Your task to perform on an android device: see tabs open on other devices in the chrome app Image 0: 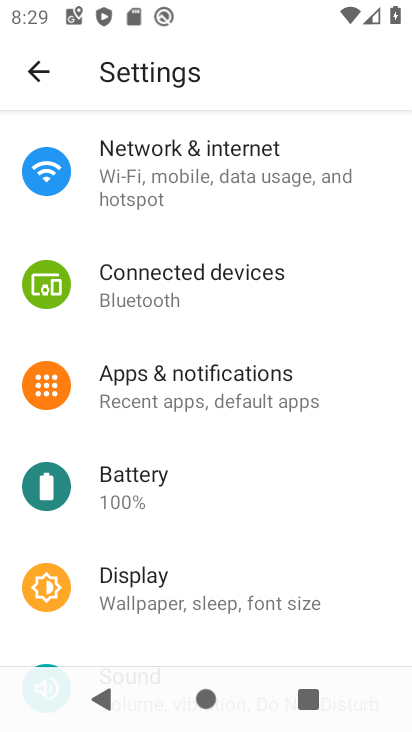
Step 0: press home button
Your task to perform on an android device: see tabs open on other devices in the chrome app Image 1: 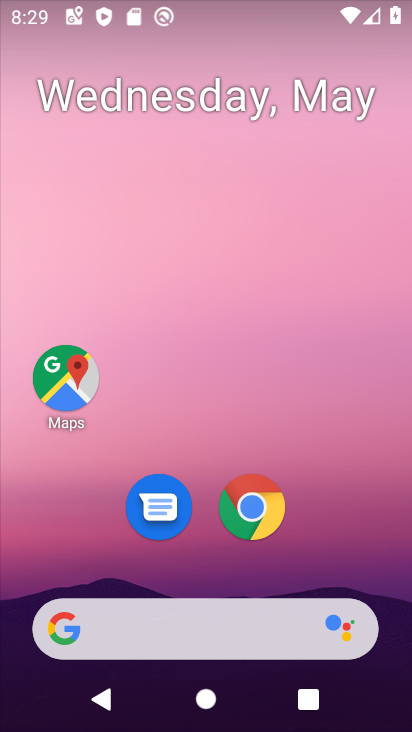
Step 1: click (270, 495)
Your task to perform on an android device: see tabs open on other devices in the chrome app Image 2: 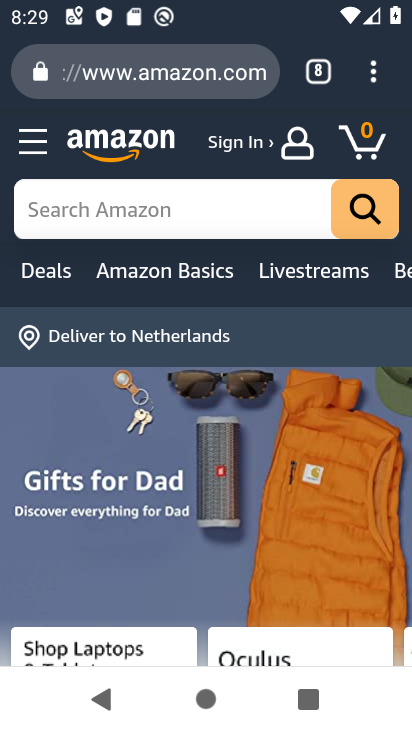
Step 2: click (356, 56)
Your task to perform on an android device: see tabs open on other devices in the chrome app Image 3: 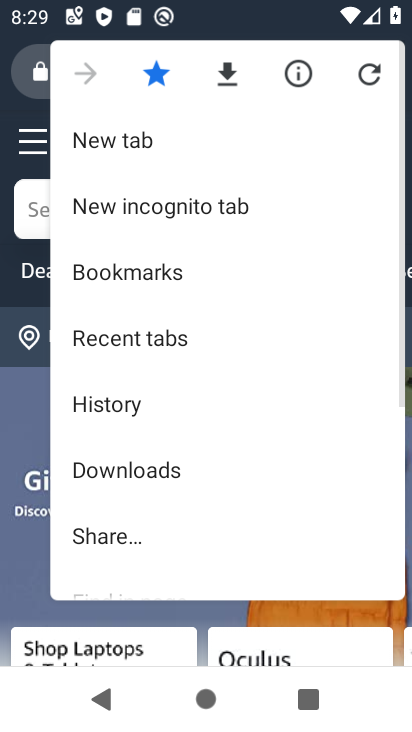
Step 3: click (142, 412)
Your task to perform on an android device: see tabs open on other devices in the chrome app Image 4: 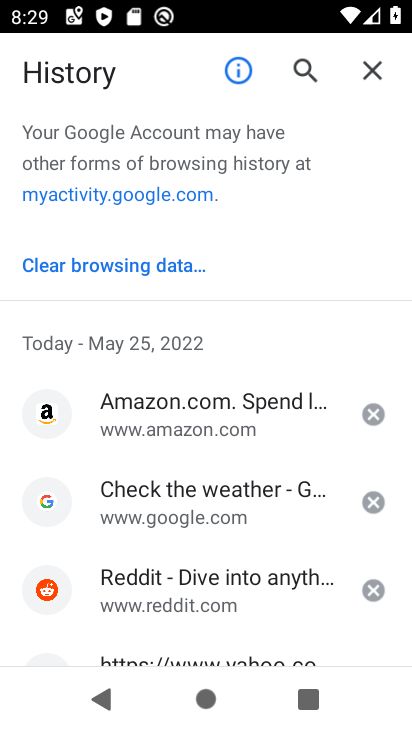
Step 4: task complete